Your task to perform on an android device: star an email in the gmail app Image 0: 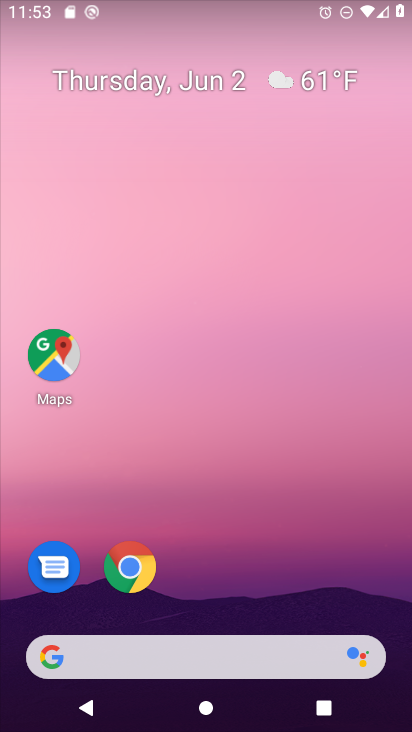
Step 0: click (255, 65)
Your task to perform on an android device: star an email in the gmail app Image 1: 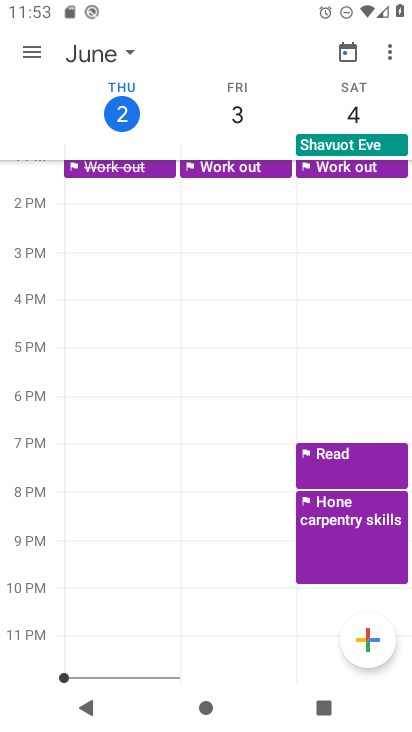
Step 1: press home button
Your task to perform on an android device: star an email in the gmail app Image 2: 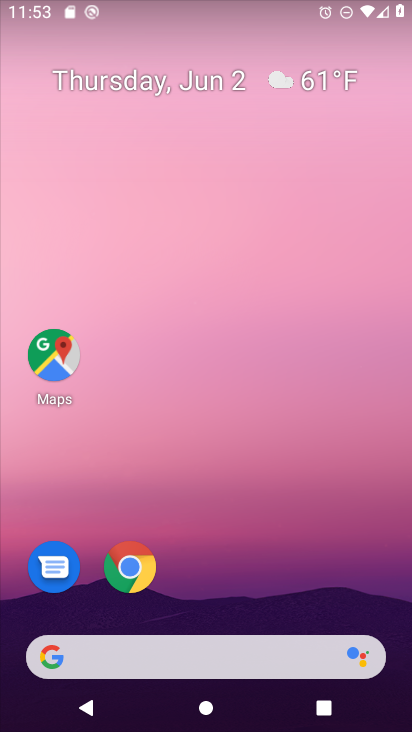
Step 2: drag from (260, 553) to (286, 176)
Your task to perform on an android device: star an email in the gmail app Image 3: 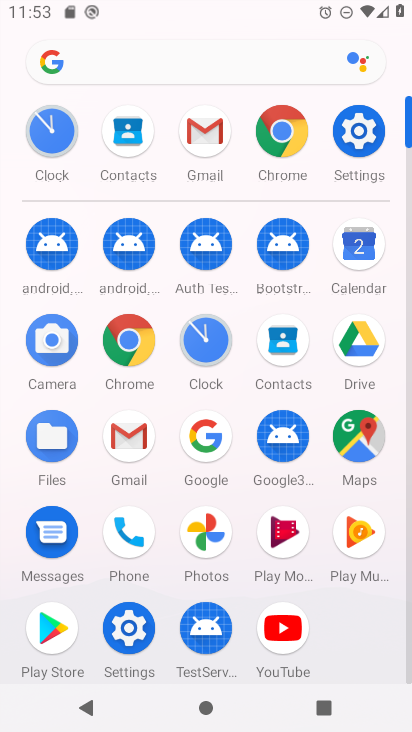
Step 3: click (214, 140)
Your task to perform on an android device: star an email in the gmail app Image 4: 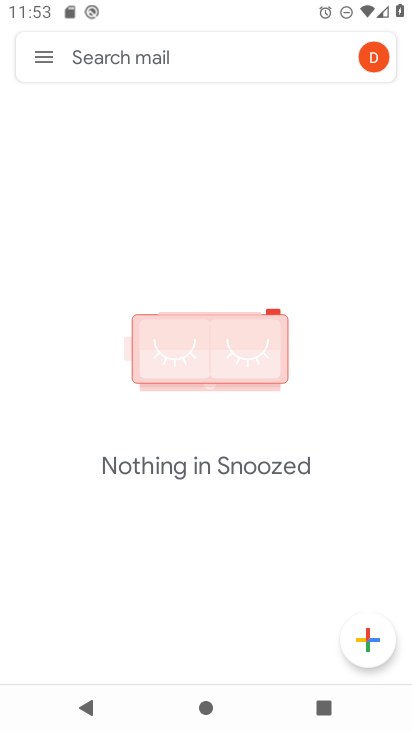
Step 4: click (48, 59)
Your task to perform on an android device: star an email in the gmail app Image 5: 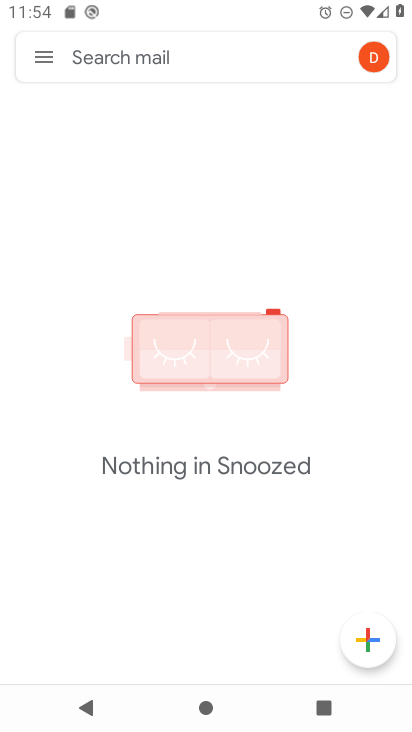
Step 5: click (47, 59)
Your task to perform on an android device: star an email in the gmail app Image 6: 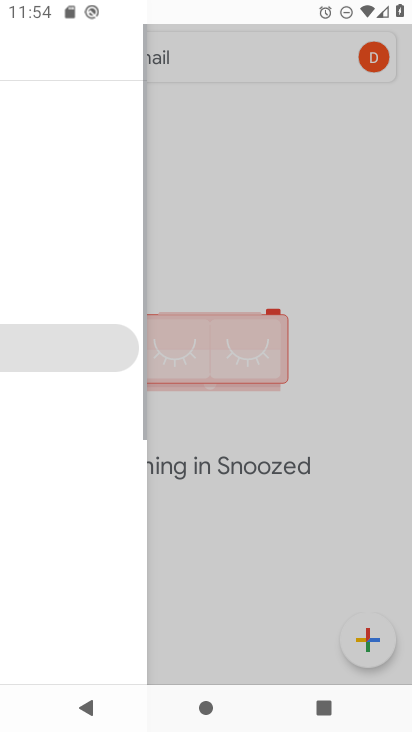
Step 6: click (46, 59)
Your task to perform on an android device: star an email in the gmail app Image 7: 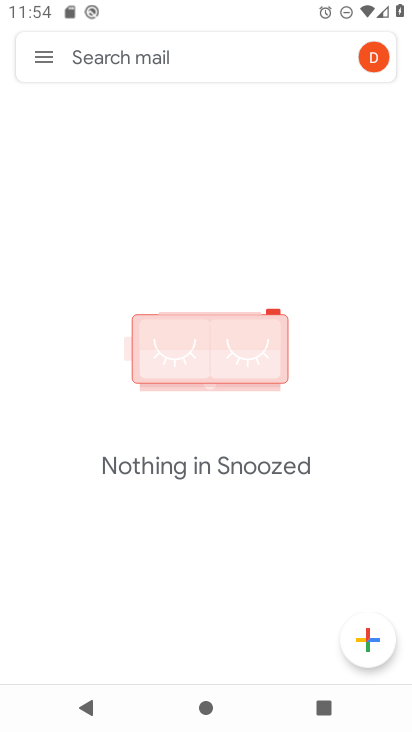
Step 7: click (36, 54)
Your task to perform on an android device: star an email in the gmail app Image 8: 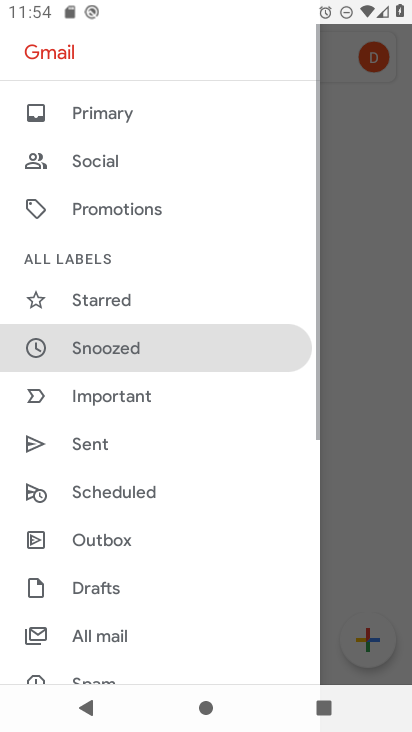
Step 8: drag from (127, 473) to (157, 123)
Your task to perform on an android device: star an email in the gmail app Image 9: 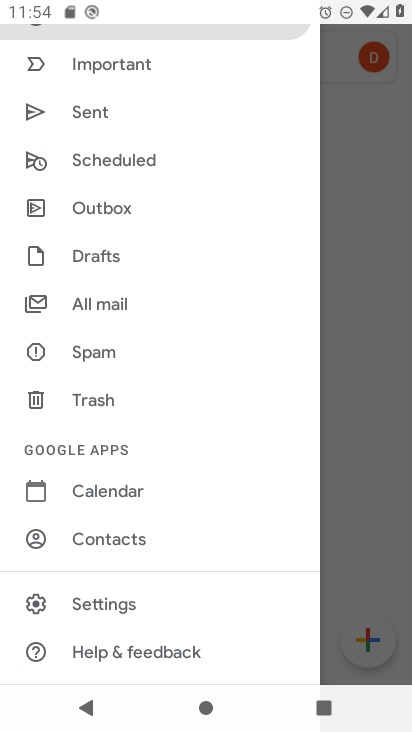
Step 9: click (81, 298)
Your task to perform on an android device: star an email in the gmail app Image 10: 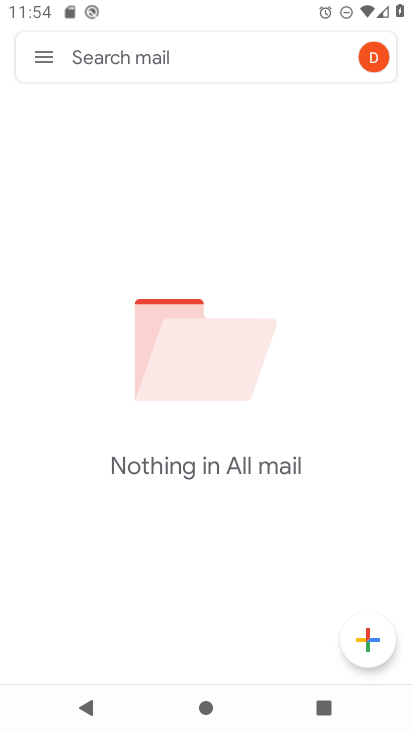
Step 10: task complete